Your task to perform on an android device: Open privacy settings Image 0: 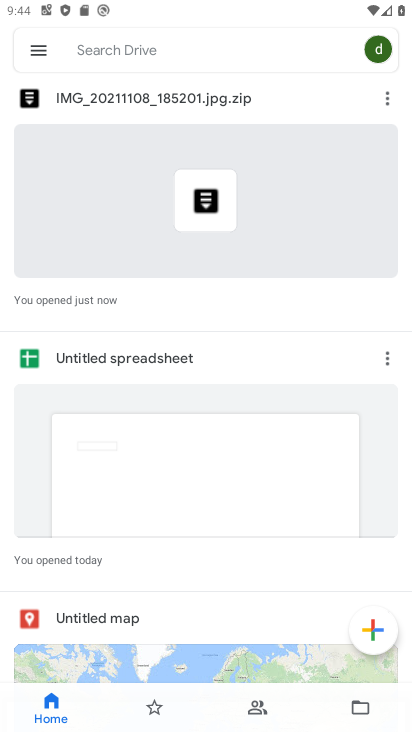
Step 0: press home button
Your task to perform on an android device: Open privacy settings Image 1: 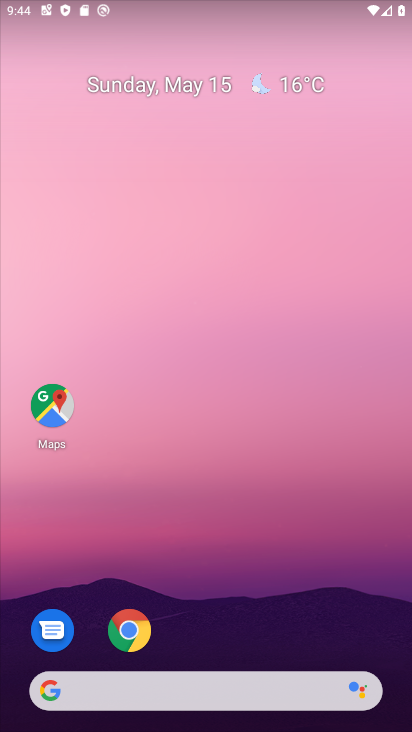
Step 1: drag from (213, 631) to (195, 127)
Your task to perform on an android device: Open privacy settings Image 2: 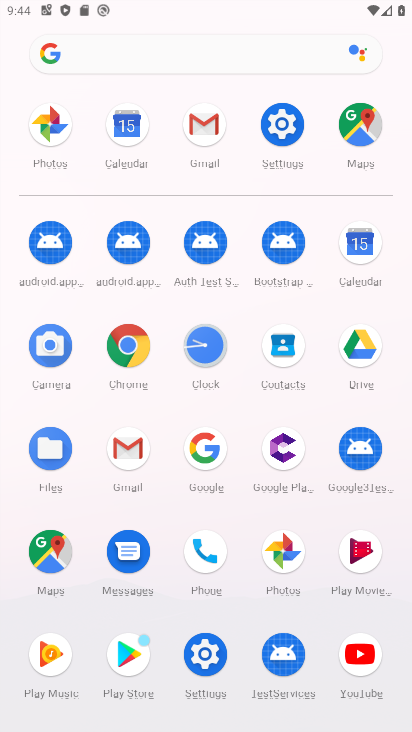
Step 2: click (269, 122)
Your task to perform on an android device: Open privacy settings Image 3: 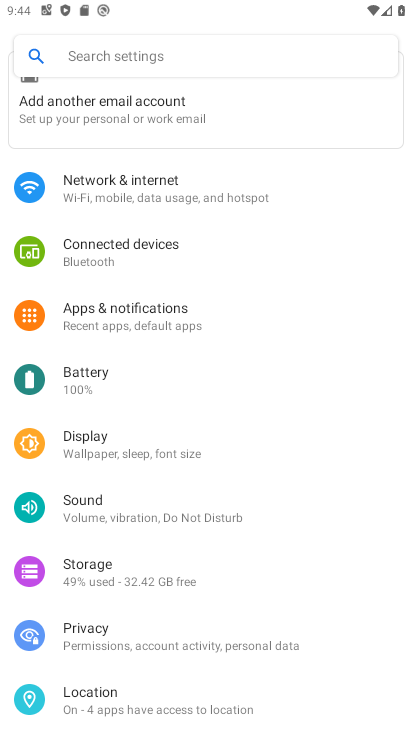
Step 3: click (100, 626)
Your task to perform on an android device: Open privacy settings Image 4: 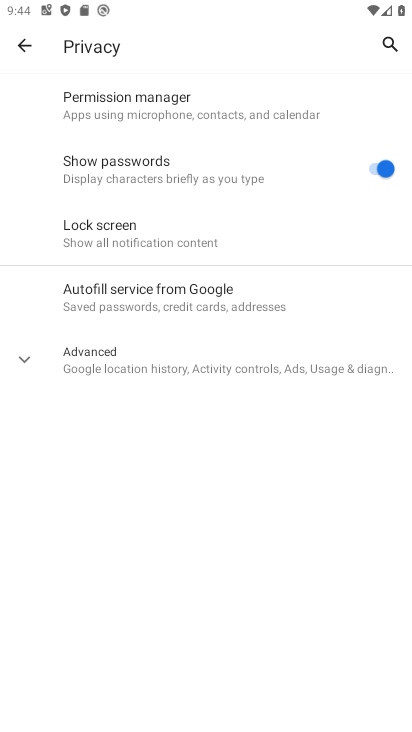
Step 4: task complete